Your task to perform on an android device: Add "usb-b" to the cart on costco, then select checkout. Image 0: 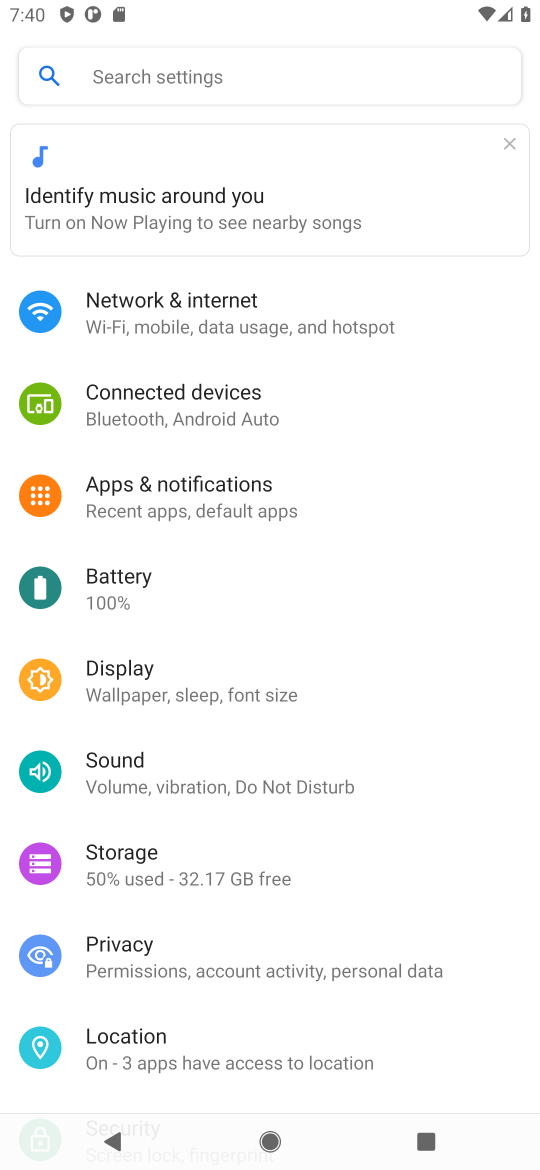
Step 0: press home button
Your task to perform on an android device: Add "usb-b" to the cart on costco, then select checkout. Image 1: 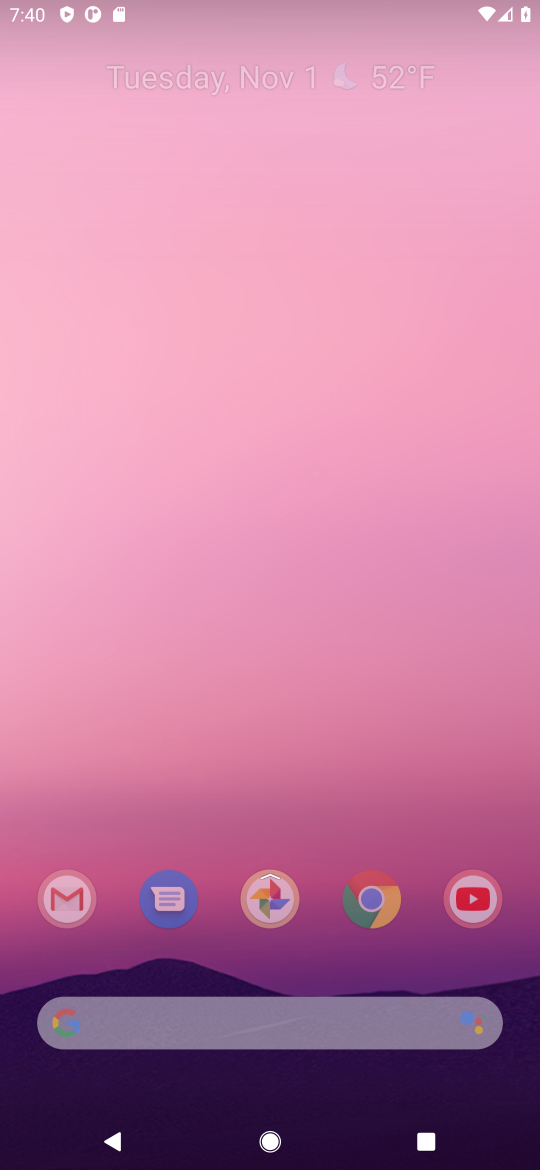
Step 1: press home button
Your task to perform on an android device: Add "usb-b" to the cart on costco, then select checkout. Image 2: 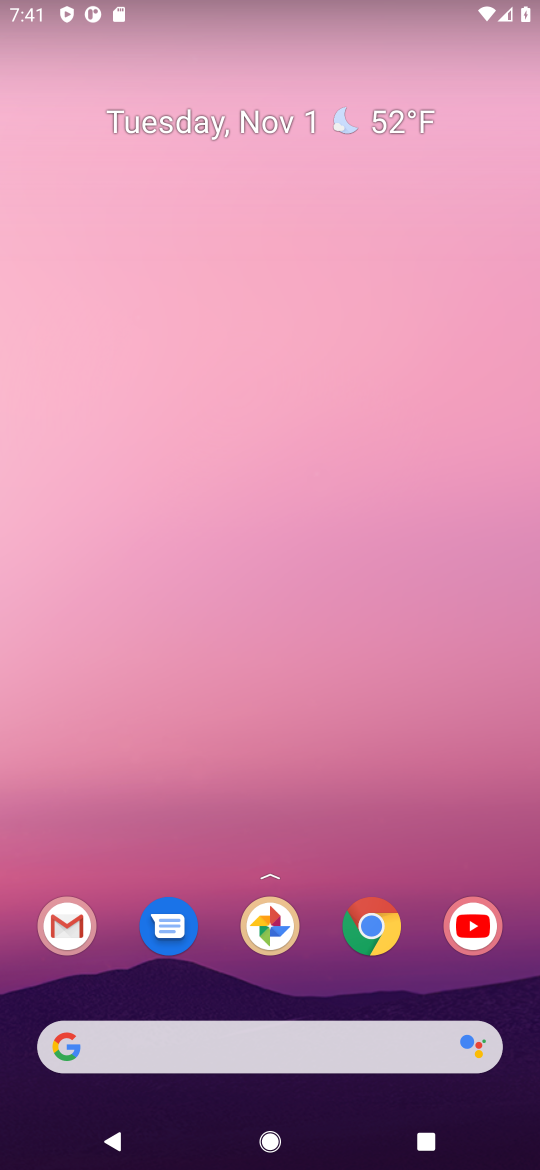
Step 2: click (362, 930)
Your task to perform on an android device: Add "usb-b" to the cart on costco, then select checkout. Image 3: 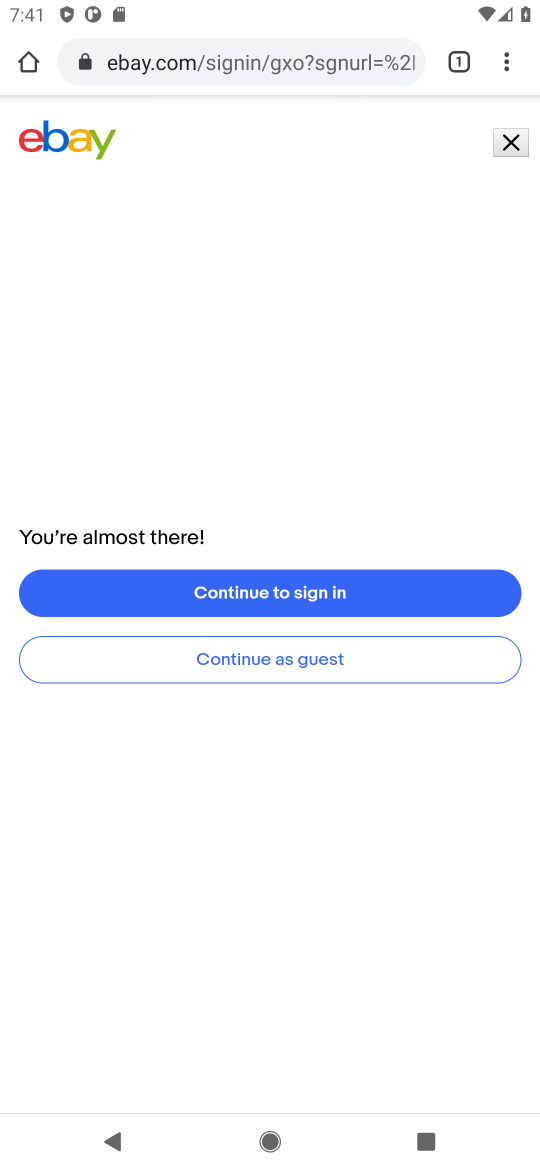
Step 3: click (178, 51)
Your task to perform on an android device: Add "usb-b" to the cart on costco, then select checkout. Image 4: 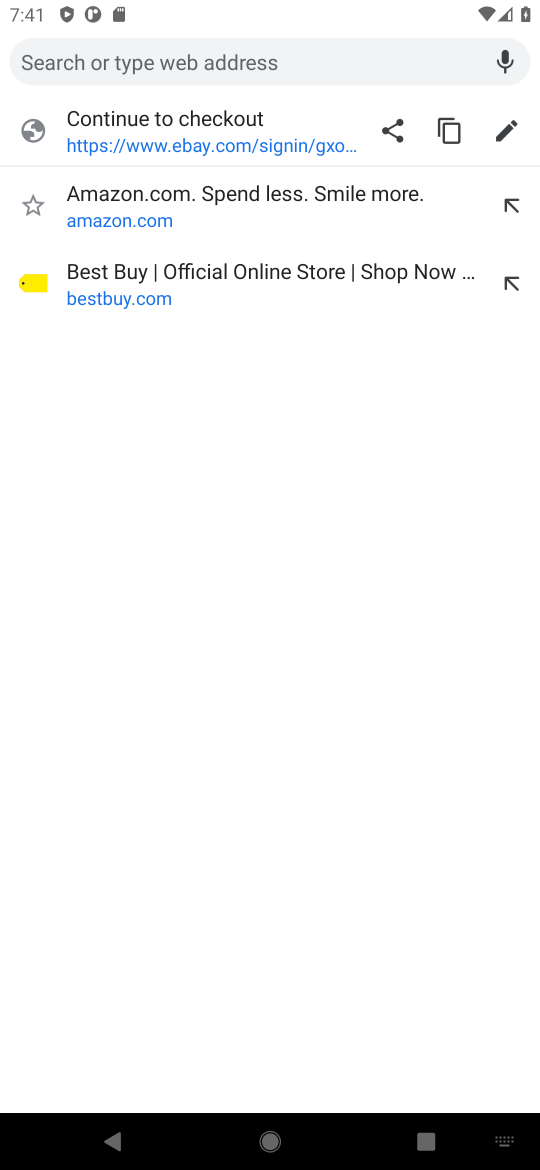
Step 4: type "costco"
Your task to perform on an android device: Add "usb-b" to the cart on costco, then select checkout. Image 5: 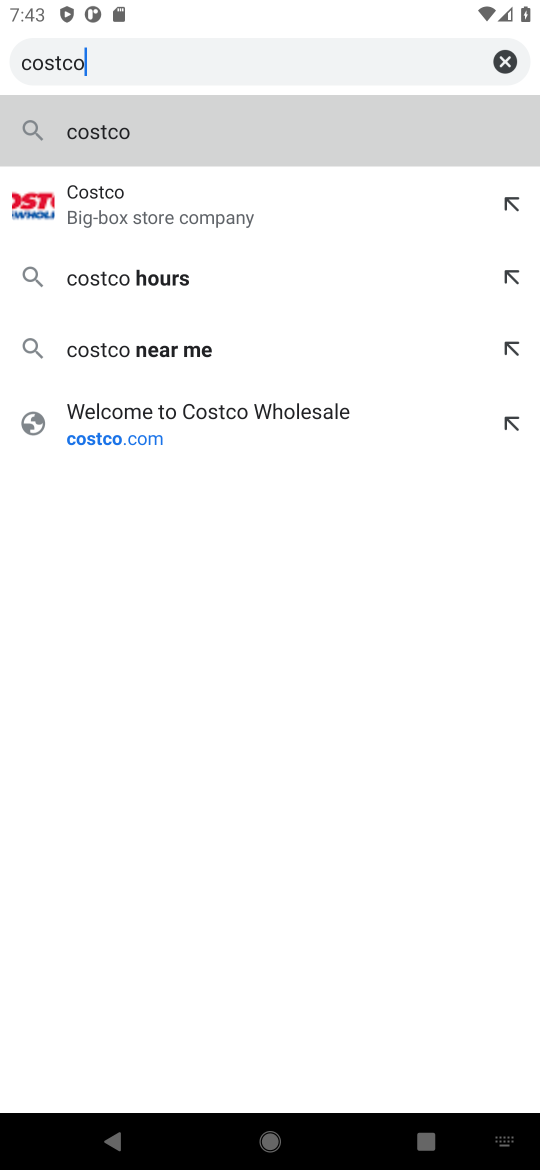
Step 5: click (140, 208)
Your task to perform on an android device: Add "usb-b" to the cart on costco, then select checkout. Image 6: 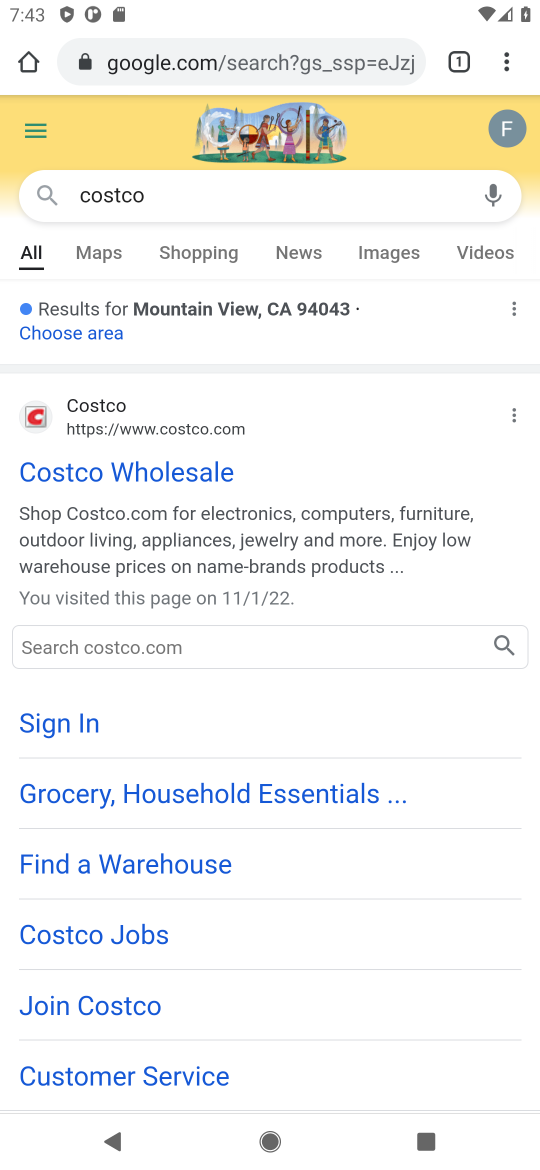
Step 6: click (154, 471)
Your task to perform on an android device: Add "usb-b" to the cart on costco, then select checkout. Image 7: 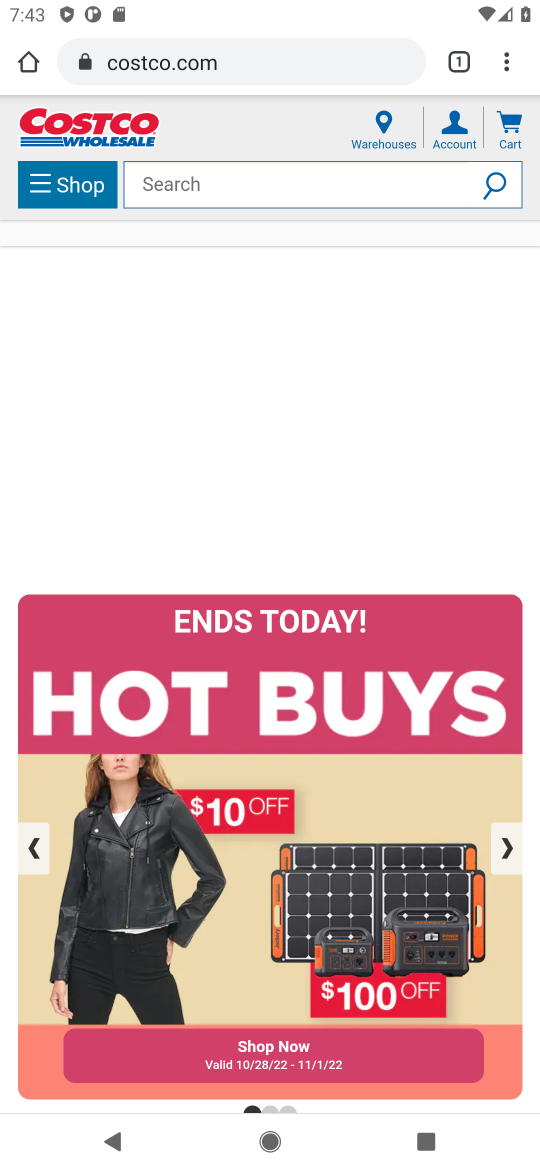
Step 7: click (190, 191)
Your task to perform on an android device: Add "usb-b" to the cart on costco, then select checkout. Image 8: 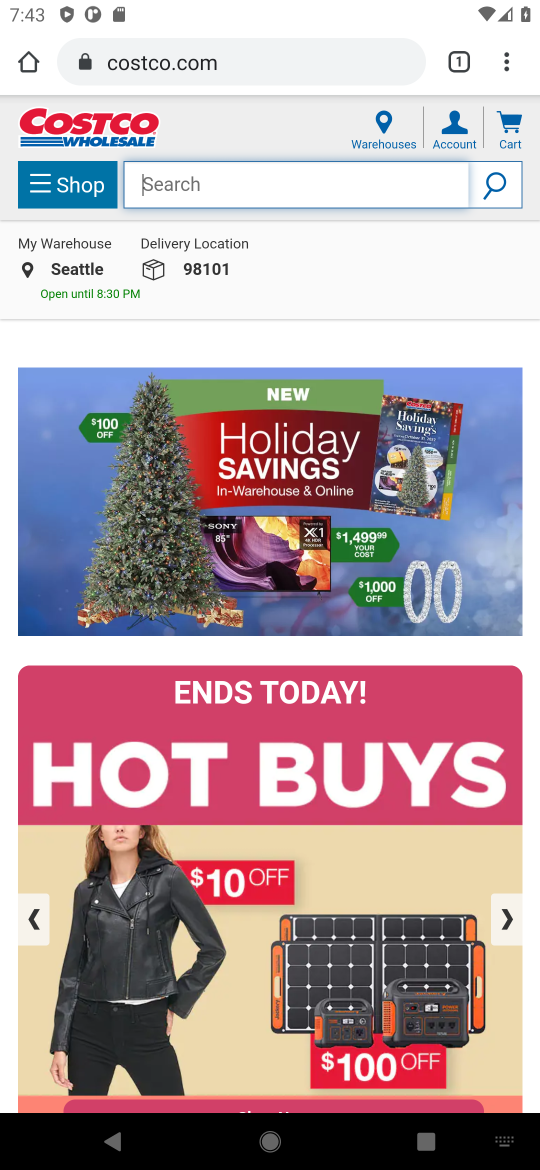
Step 8: type "usb -b"
Your task to perform on an android device: Add "usb-b" to the cart on costco, then select checkout. Image 9: 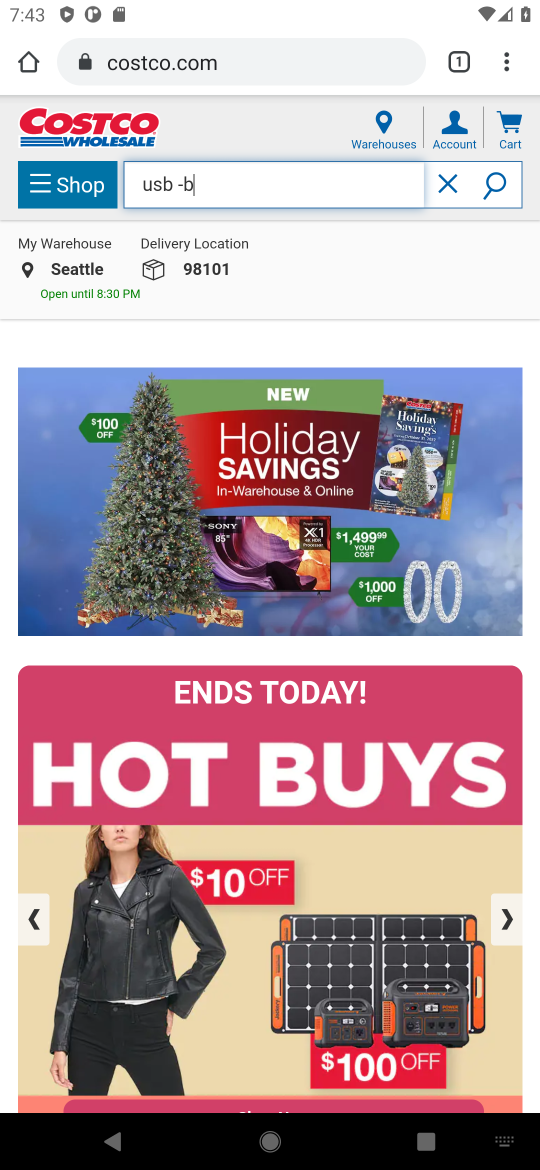
Step 9: type ""
Your task to perform on an android device: Add "usb-b" to the cart on costco, then select checkout. Image 10: 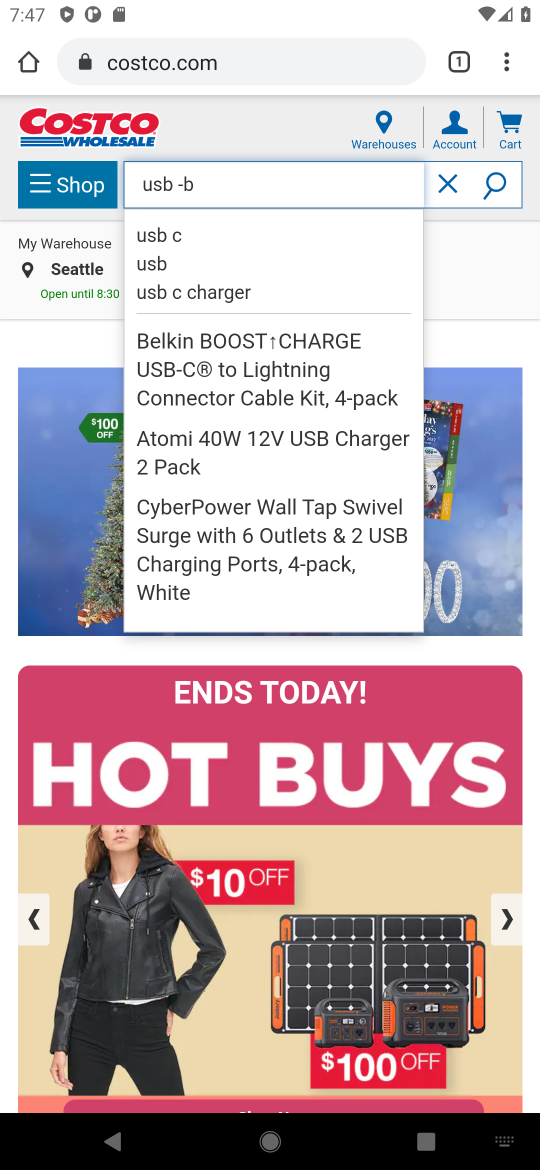
Step 10: click (154, 228)
Your task to perform on an android device: Add "usb-b" to the cart on costco, then select checkout. Image 11: 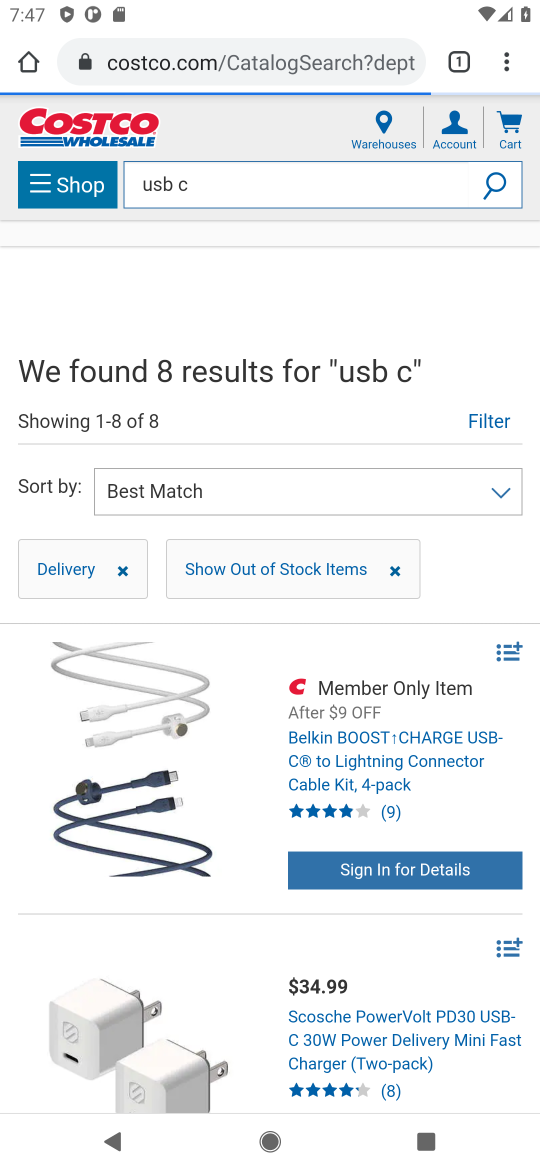
Step 11: drag from (351, 1073) to (345, 599)
Your task to perform on an android device: Add "usb-b" to the cart on costco, then select checkout. Image 12: 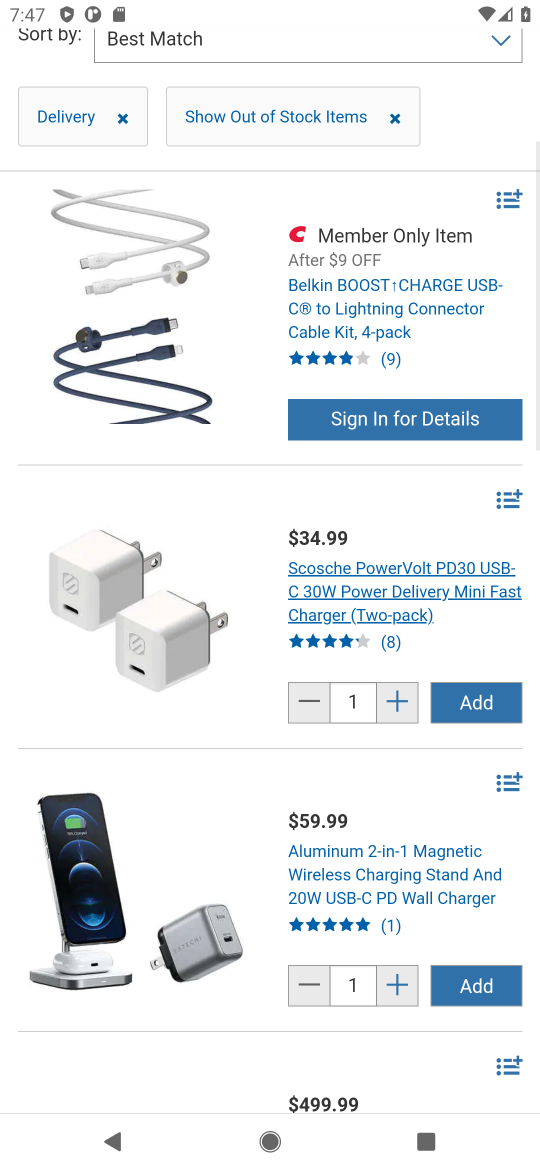
Step 12: click (78, 910)
Your task to perform on an android device: Add "usb-b" to the cart on costco, then select checkout. Image 13: 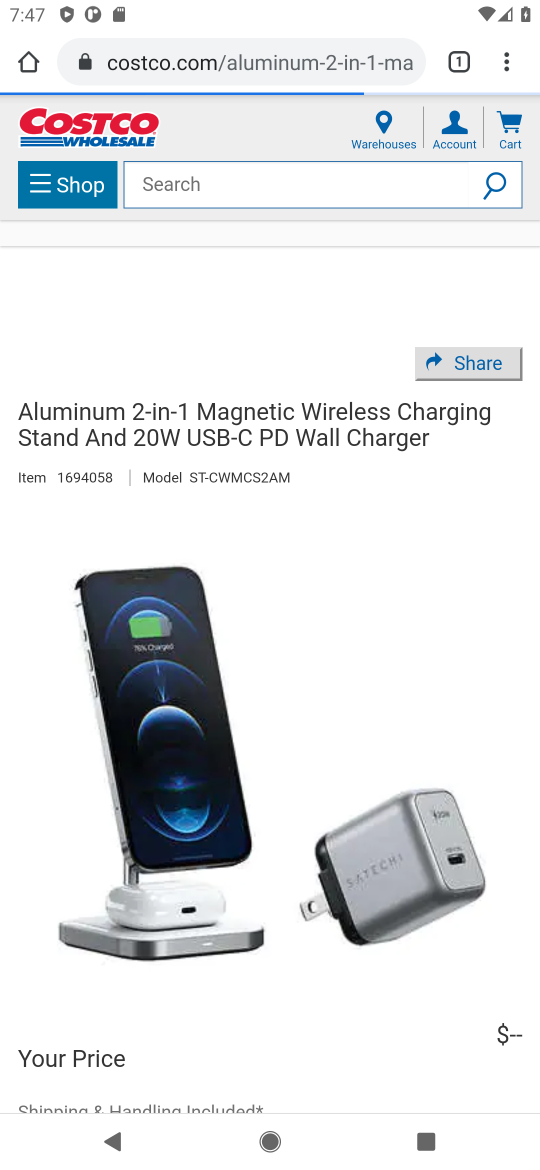
Step 13: task complete